Your task to perform on an android device: Open eBay Image 0: 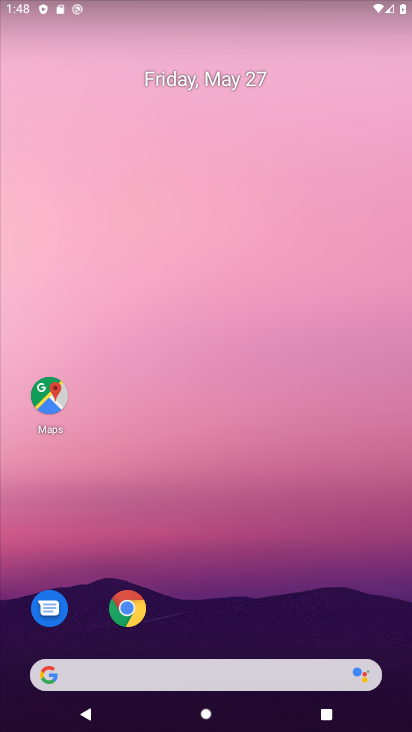
Step 0: click (231, 669)
Your task to perform on an android device: Open eBay Image 1: 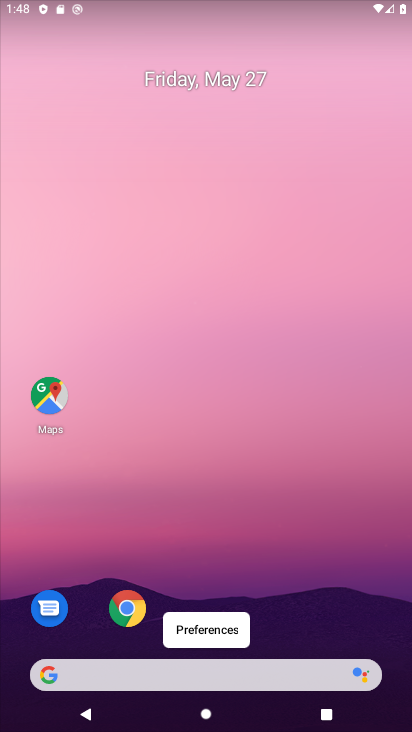
Step 1: click (231, 669)
Your task to perform on an android device: Open eBay Image 2: 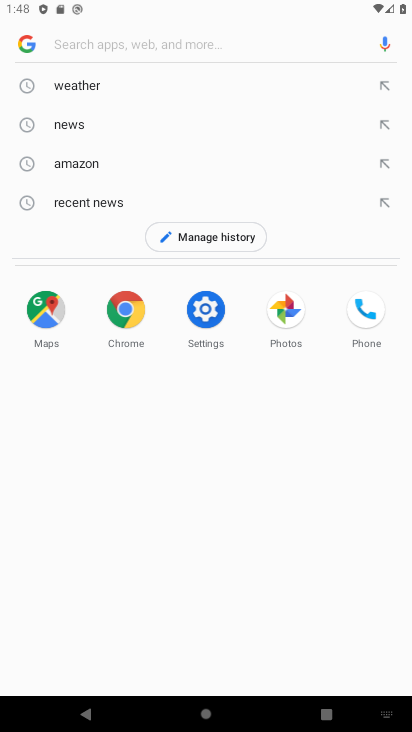
Step 2: type "eBay"
Your task to perform on an android device: Open eBay Image 3: 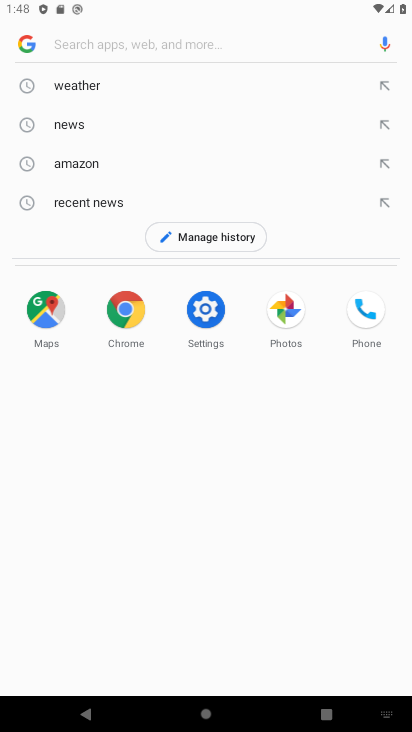
Step 3: click (141, 45)
Your task to perform on an android device: Open eBay Image 4: 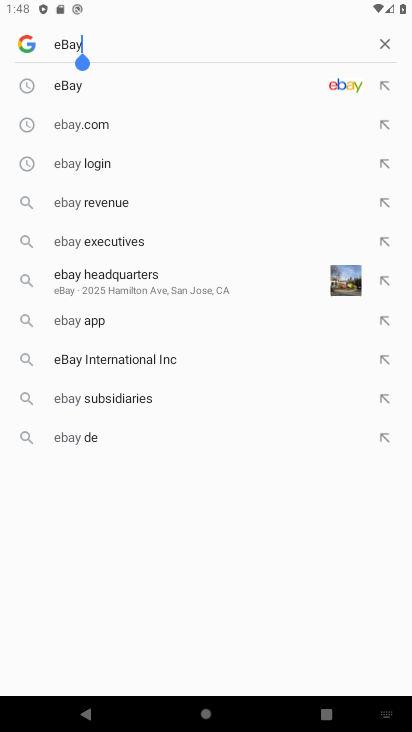
Step 4: click (344, 86)
Your task to perform on an android device: Open eBay Image 5: 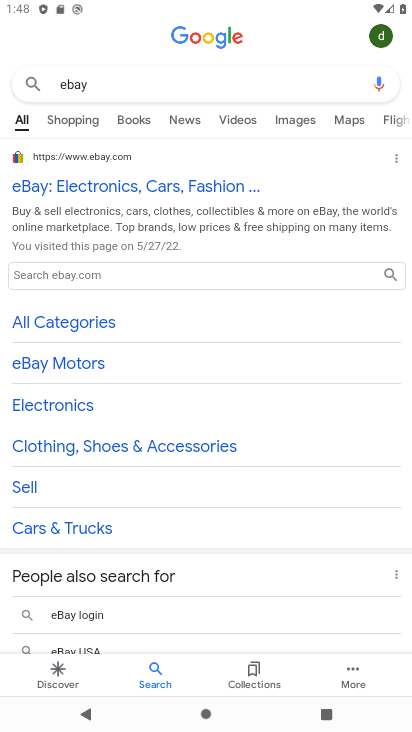
Step 5: click (107, 187)
Your task to perform on an android device: Open eBay Image 6: 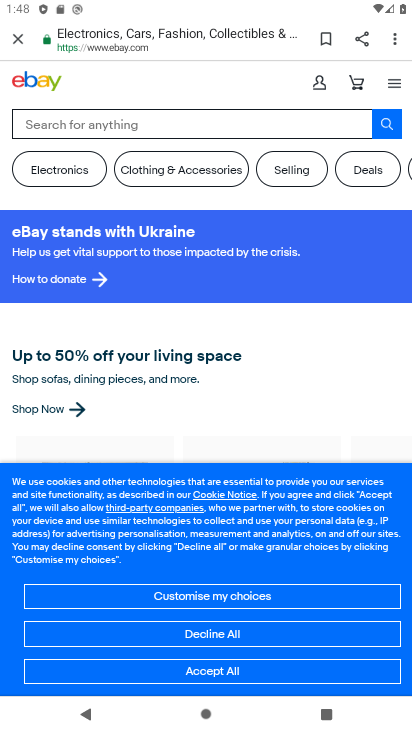
Step 6: task complete